Your task to perform on an android device: change notification settings in the gmail app Image 0: 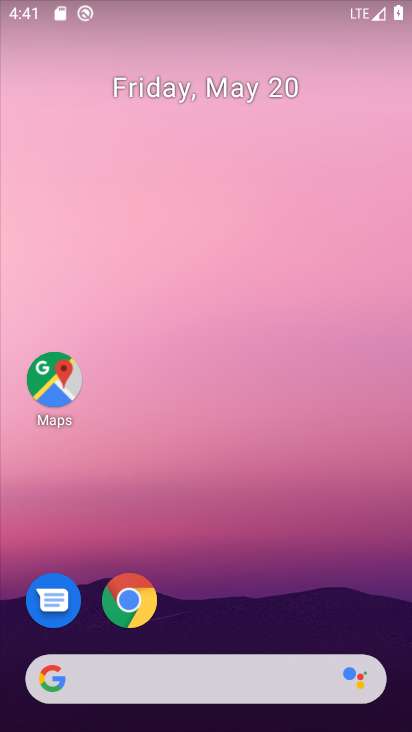
Step 0: drag from (182, 211) to (163, 51)
Your task to perform on an android device: change notification settings in the gmail app Image 1: 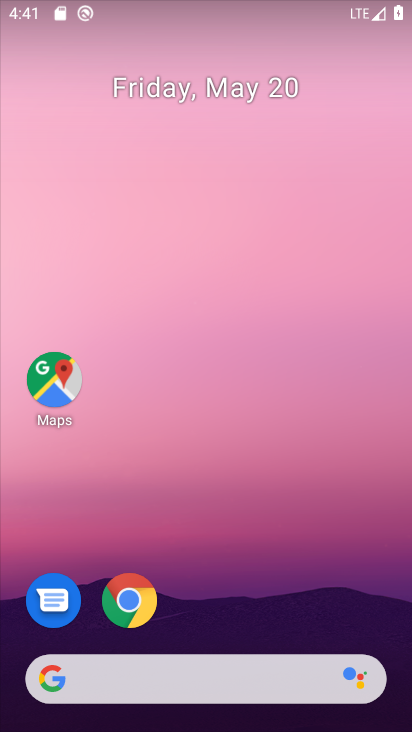
Step 1: drag from (249, 560) to (235, 3)
Your task to perform on an android device: change notification settings in the gmail app Image 2: 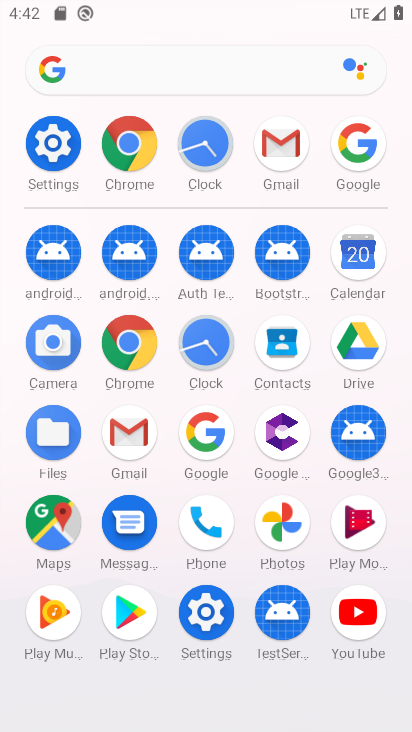
Step 2: click (287, 150)
Your task to perform on an android device: change notification settings in the gmail app Image 3: 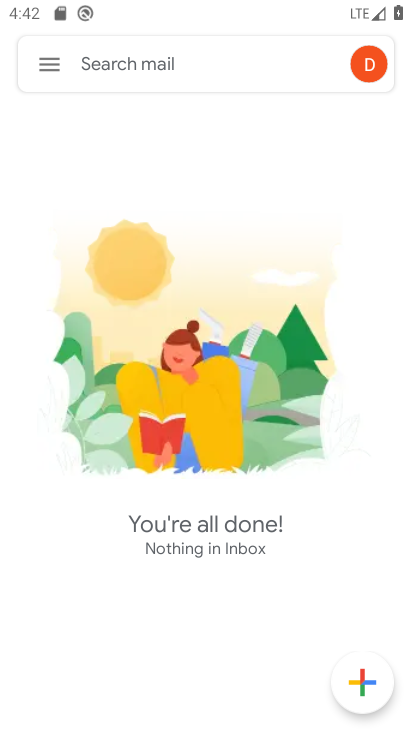
Step 3: click (39, 57)
Your task to perform on an android device: change notification settings in the gmail app Image 4: 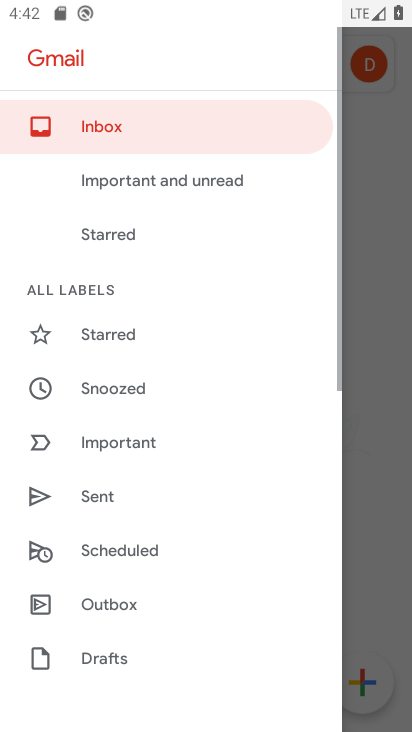
Step 4: drag from (206, 562) to (210, 66)
Your task to perform on an android device: change notification settings in the gmail app Image 5: 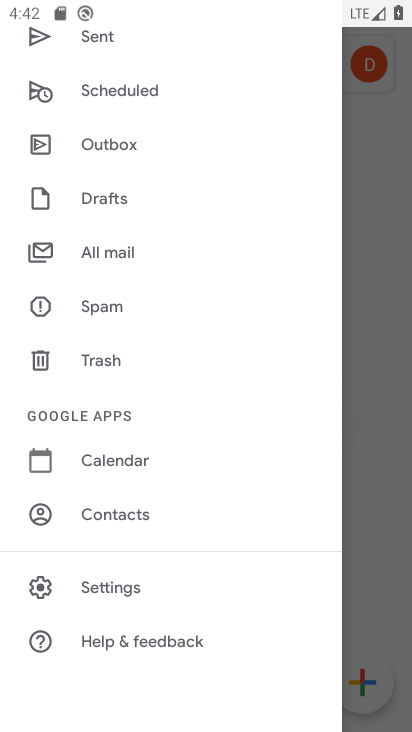
Step 5: click (155, 571)
Your task to perform on an android device: change notification settings in the gmail app Image 6: 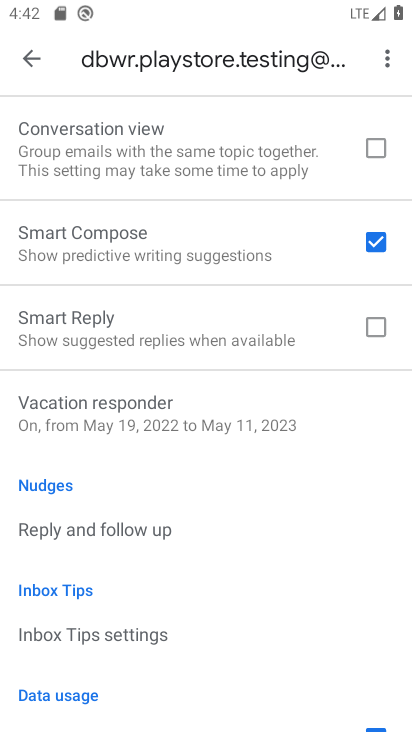
Step 6: drag from (254, 522) to (245, 219)
Your task to perform on an android device: change notification settings in the gmail app Image 7: 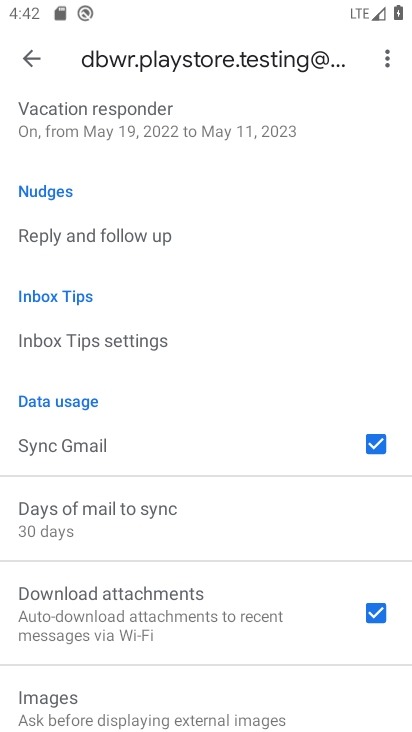
Step 7: drag from (205, 208) to (162, 707)
Your task to perform on an android device: change notification settings in the gmail app Image 8: 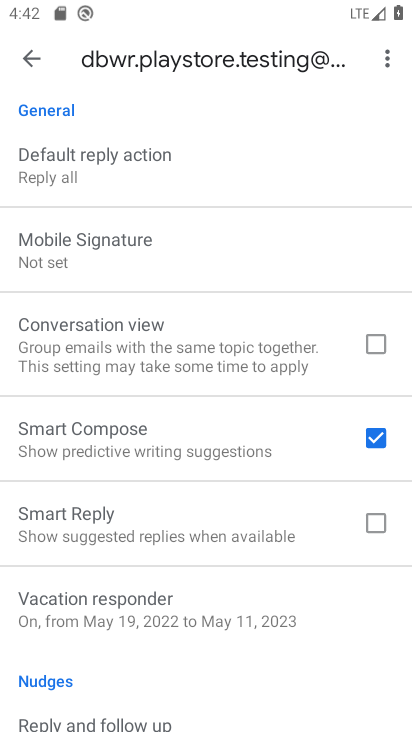
Step 8: drag from (174, 217) to (189, 687)
Your task to perform on an android device: change notification settings in the gmail app Image 9: 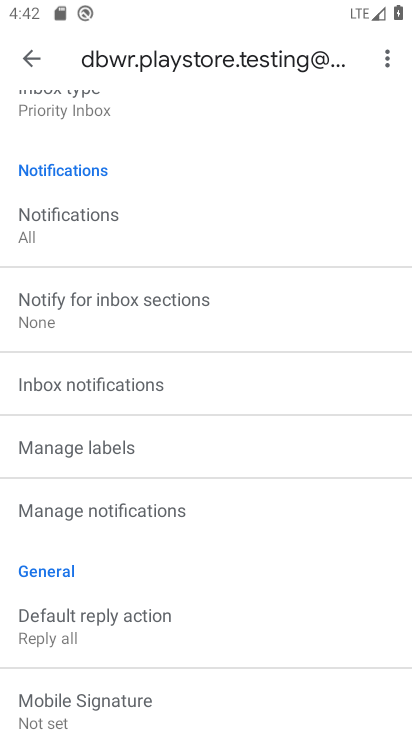
Step 9: drag from (197, 238) to (177, 709)
Your task to perform on an android device: change notification settings in the gmail app Image 10: 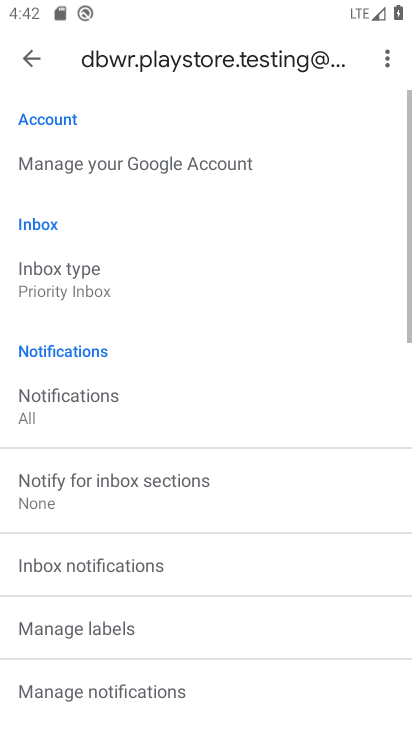
Step 10: click (106, 400)
Your task to perform on an android device: change notification settings in the gmail app Image 11: 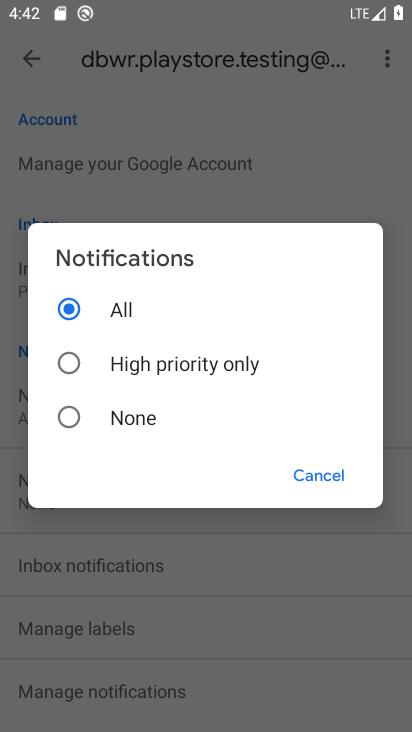
Step 11: click (145, 419)
Your task to perform on an android device: change notification settings in the gmail app Image 12: 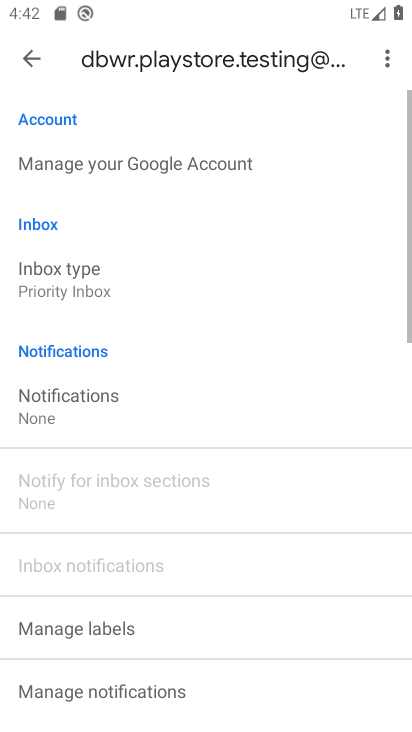
Step 12: task complete